Your task to perform on an android device: Open Chrome and go to settings Image 0: 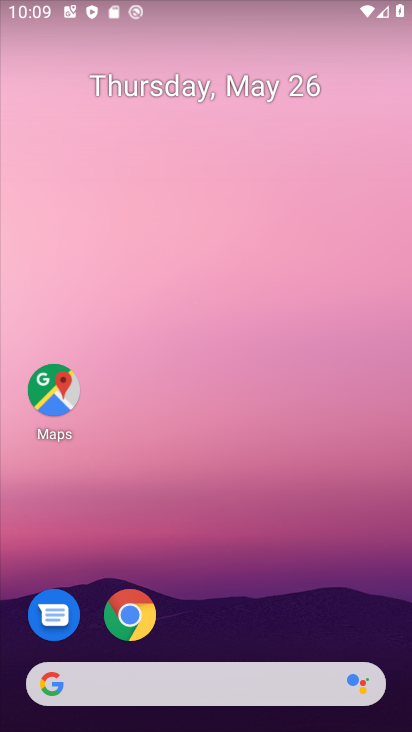
Step 0: drag from (240, 711) to (286, 53)
Your task to perform on an android device: Open Chrome and go to settings Image 1: 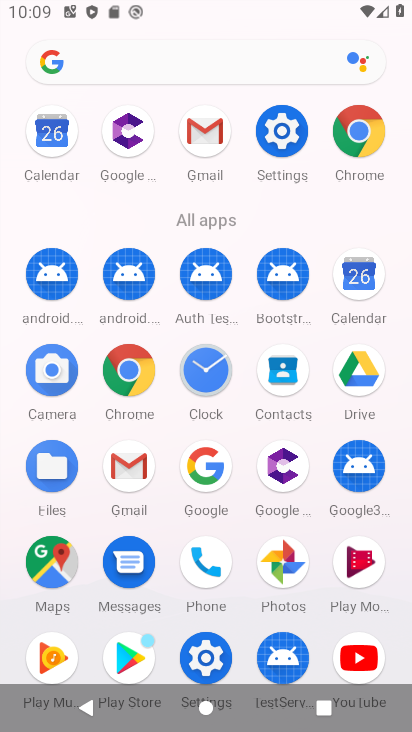
Step 1: click (134, 352)
Your task to perform on an android device: Open Chrome and go to settings Image 2: 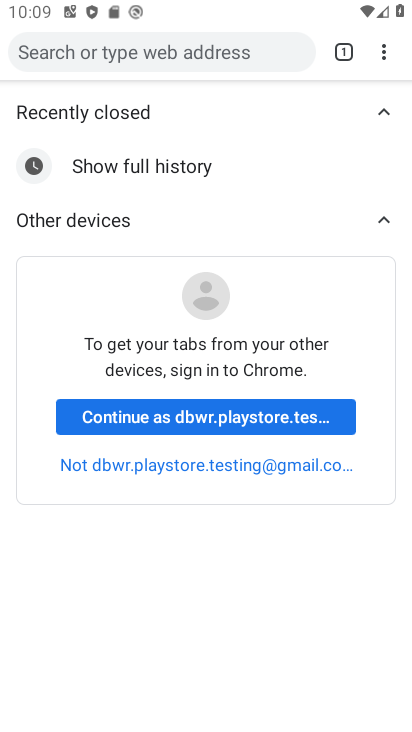
Step 2: task complete